Your task to perform on an android device: Open settings Image 0: 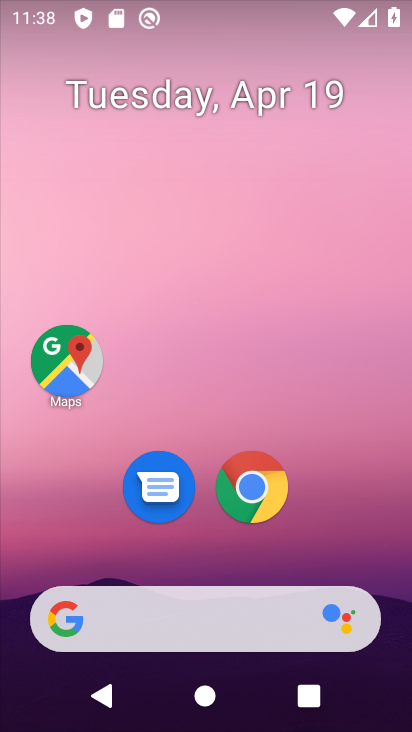
Step 0: drag from (357, 492) to (276, 81)
Your task to perform on an android device: Open settings Image 1: 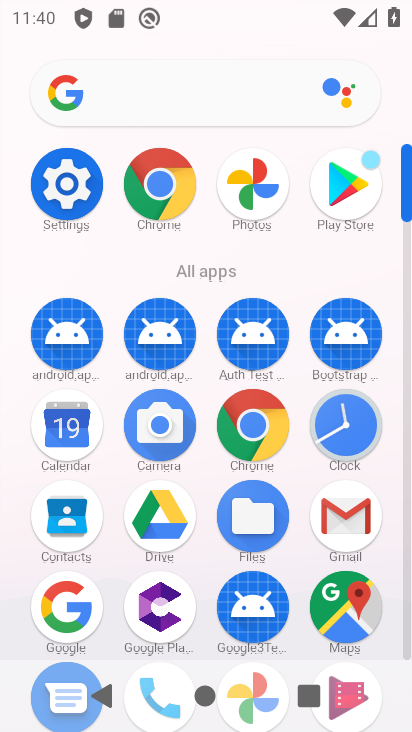
Step 1: click (68, 194)
Your task to perform on an android device: Open settings Image 2: 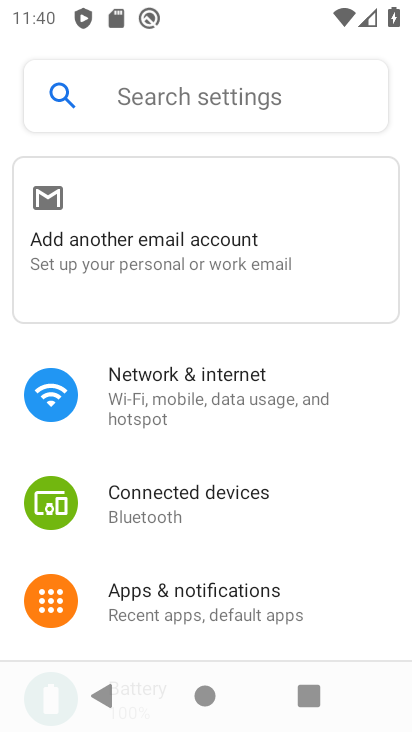
Step 2: task complete